Your task to perform on an android device: change the clock display to analog Image 0: 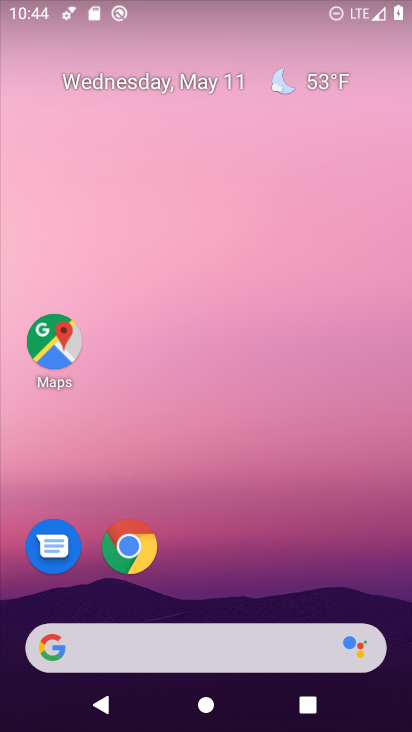
Step 0: drag from (388, 640) to (322, 53)
Your task to perform on an android device: change the clock display to analog Image 1: 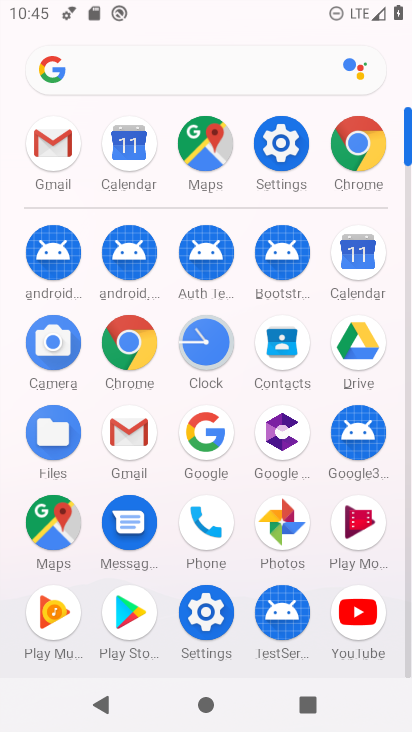
Step 1: click (199, 351)
Your task to perform on an android device: change the clock display to analog Image 2: 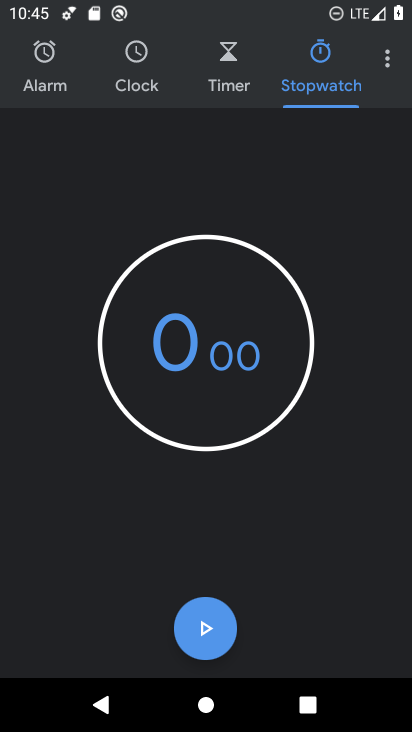
Step 2: click (384, 62)
Your task to perform on an android device: change the clock display to analog Image 3: 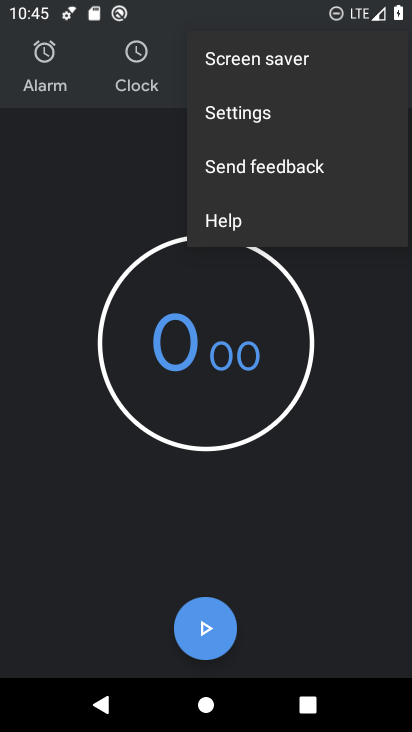
Step 3: click (244, 126)
Your task to perform on an android device: change the clock display to analog Image 4: 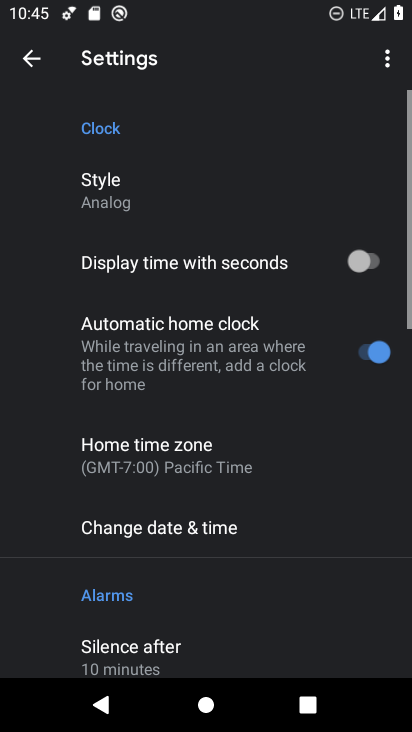
Step 4: click (170, 208)
Your task to perform on an android device: change the clock display to analog Image 5: 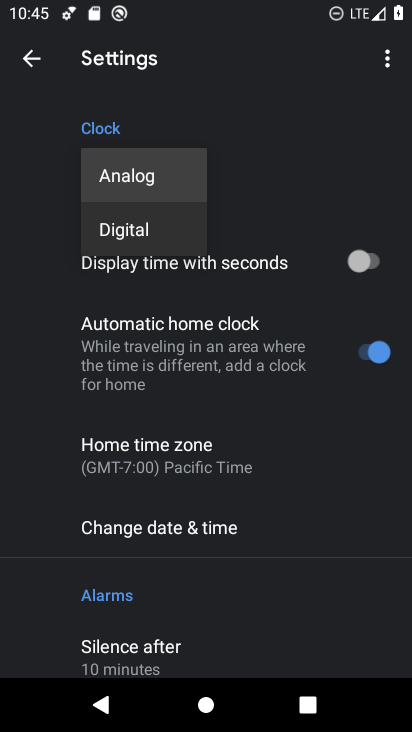
Step 5: task complete